Your task to perform on an android device: visit the assistant section in the google photos Image 0: 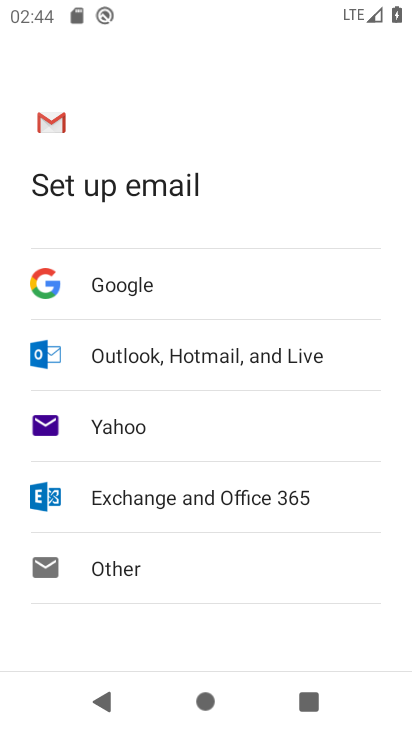
Step 0: press home button
Your task to perform on an android device: visit the assistant section in the google photos Image 1: 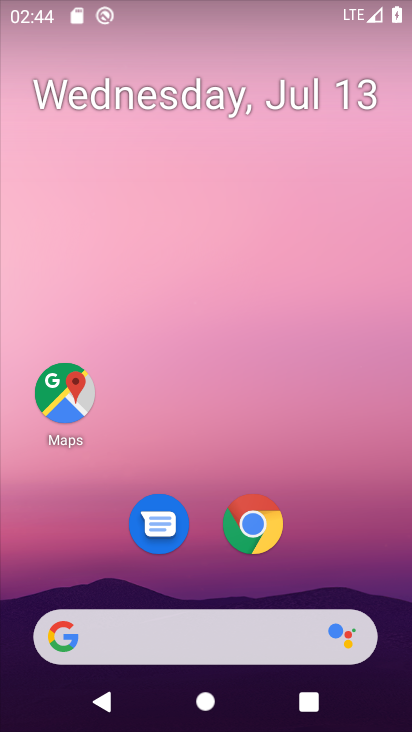
Step 1: drag from (199, 465) to (227, 4)
Your task to perform on an android device: visit the assistant section in the google photos Image 2: 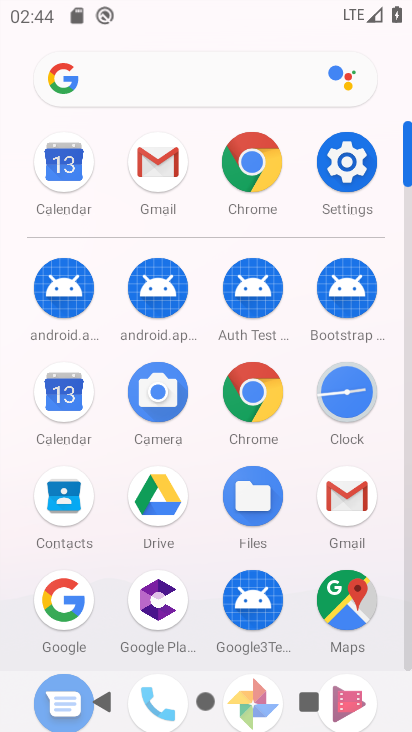
Step 2: drag from (196, 463) to (241, 141)
Your task to perform on an android device: visit the assistant section in the google photos Image 3: 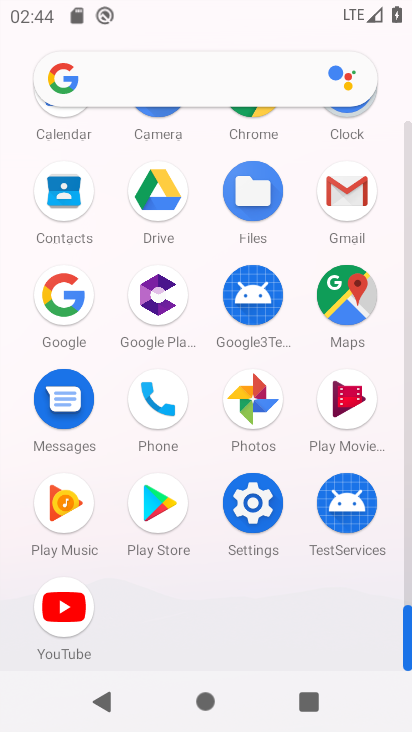
Step 3: click (255, 394)
Your task to perform on an android device: visit the assistant section in the google photos Image 4: 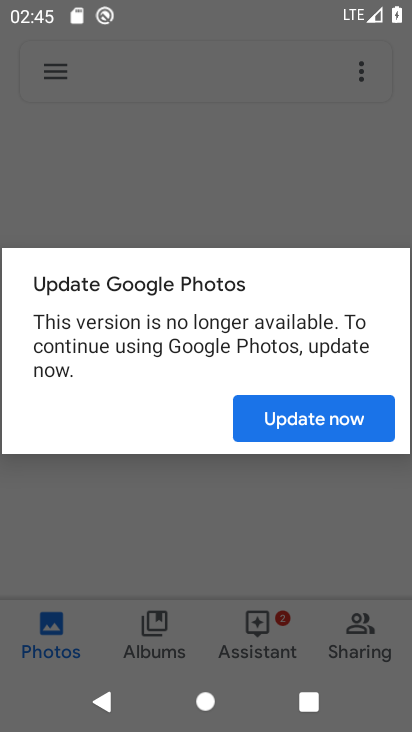
Step 4: click (284, 426)
Your task to perform on an android device: visit the assistant section in the google photos Image 5: 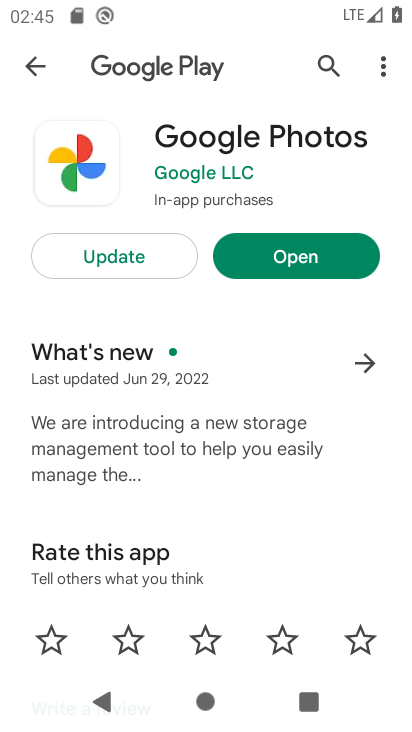
Step 5: click (310, 260)
Your task to perform on an android device: visit the assistant section in the google photos Image 6: 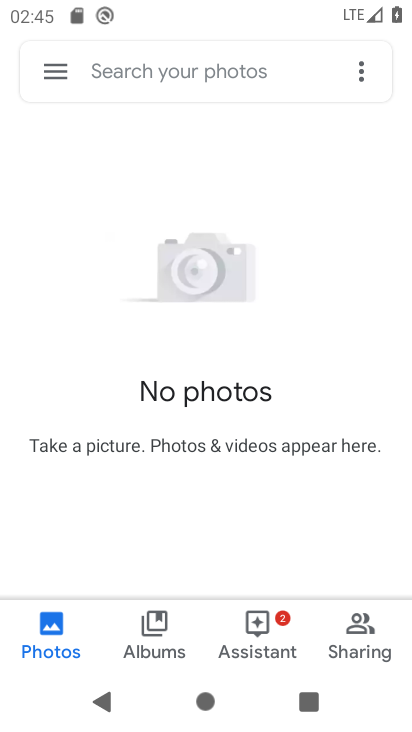
Step 6: click (258, 634)
Your task to perform on an android device: visit the assistant section in the google photos Image 7: 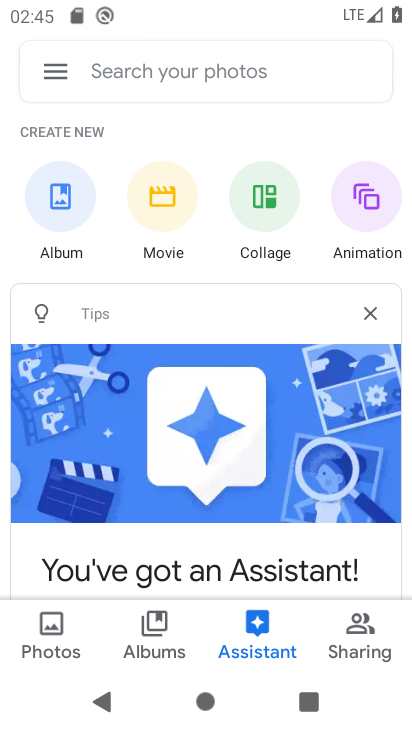
Step 7: task complete